Your task to perform on an android device: What's the weather going to be tomorrow? Image 0: 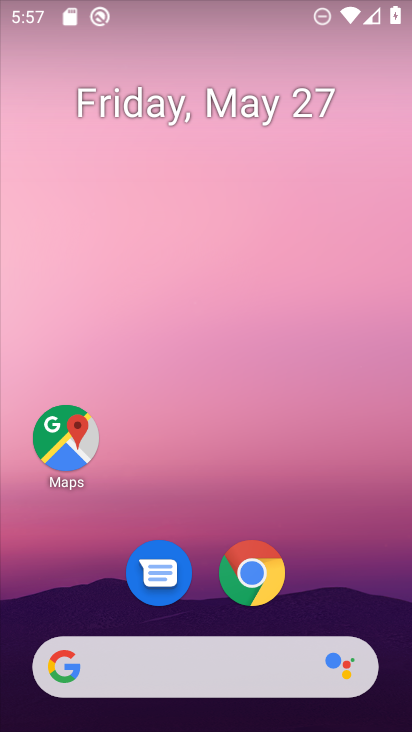
Step 0: press home button
Your task to perform on an android device: What's the weather going to be tomorrow? Image 1: 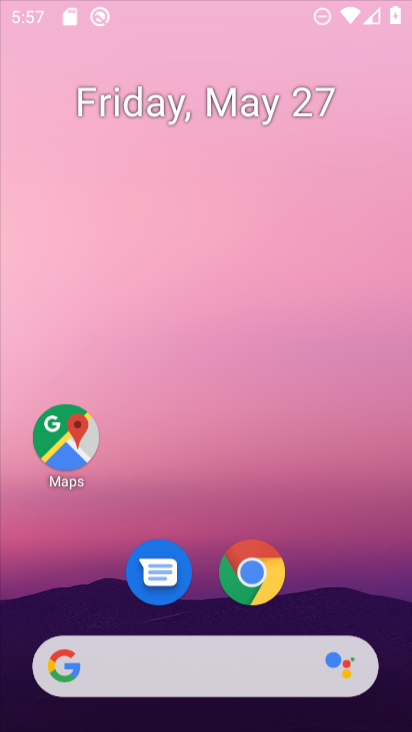
Step 1: drag from (210, 595) to (244, 193)
Your task to perform on an android device: What's the weather going to be tomorrow? Image 2: 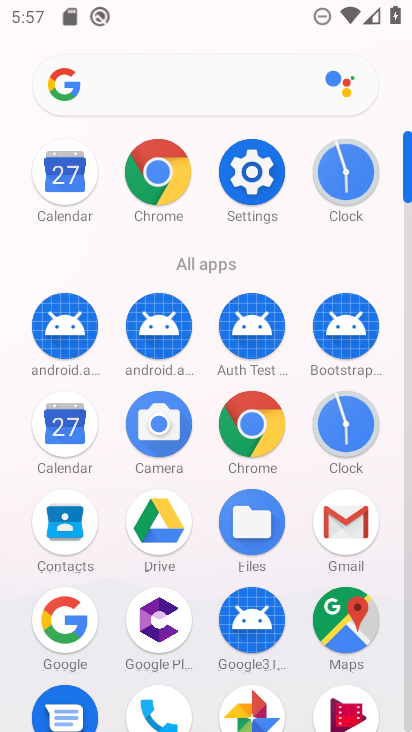
Step 2: press back button
Your task to perform on an android device: What's the weather going to be tomorrow? Image 3: 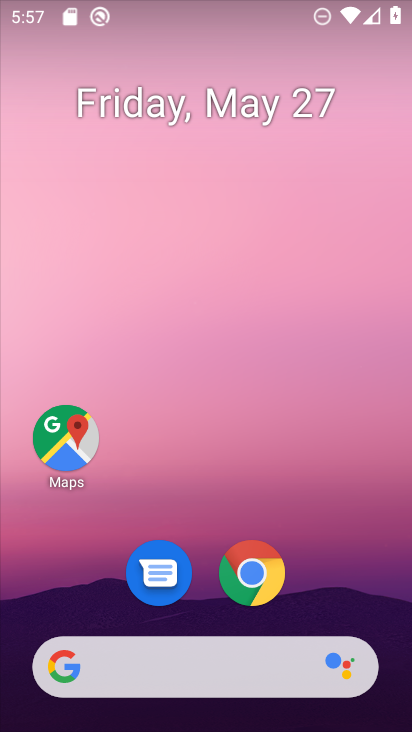
Step 3: drag from (11, 295) to (394, 294)
Your task to perform on an android device: What's the weather going to be tomorrow? Image 4: 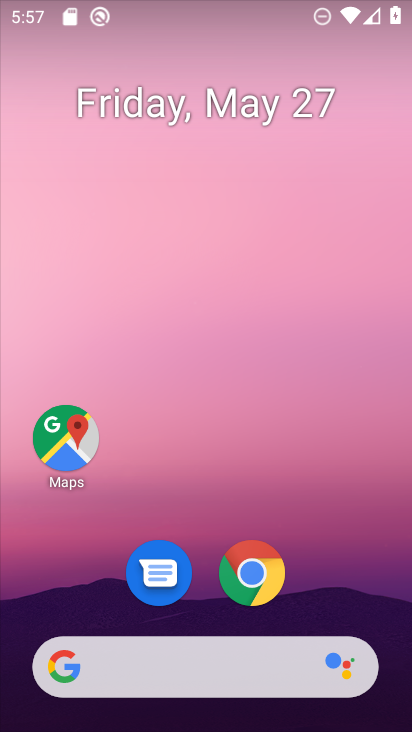
Step 4: drag from (9, 293) to (399, 289)
Your task to perform on an android device: What's the weather going to be tomorrow? Image 5: 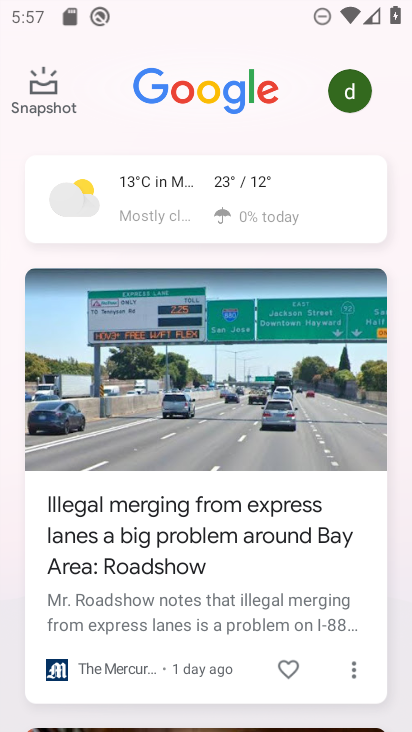
Step 5: click (169, 202)
Your task to perform on an android device: What's the weather going to be tomorrow? Image 6: 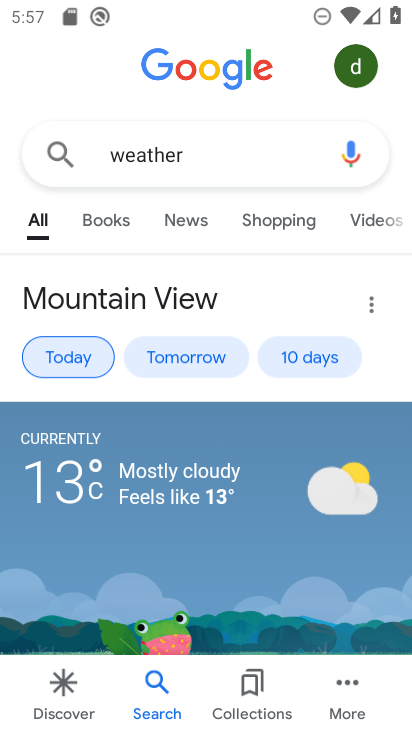
Step 6: click (185, 349)
Your task to perform on an android device: What's the weather going to be tomorrow? Image 7: 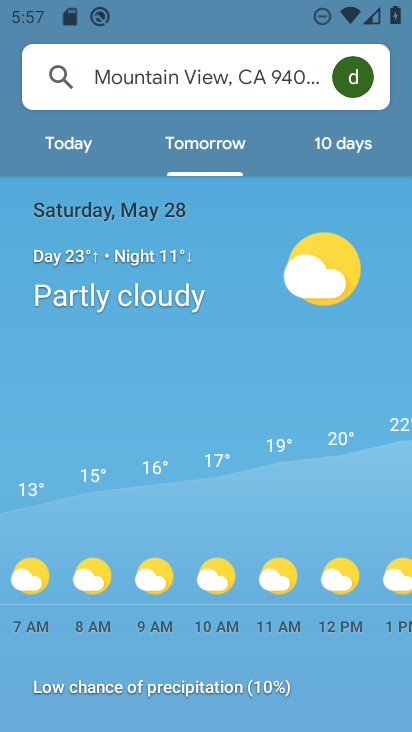
Step 7: drag from (375, 585) to (72, 583)
Your task to perform on an android device: What's the weather going to be tomorrow? Image 8: 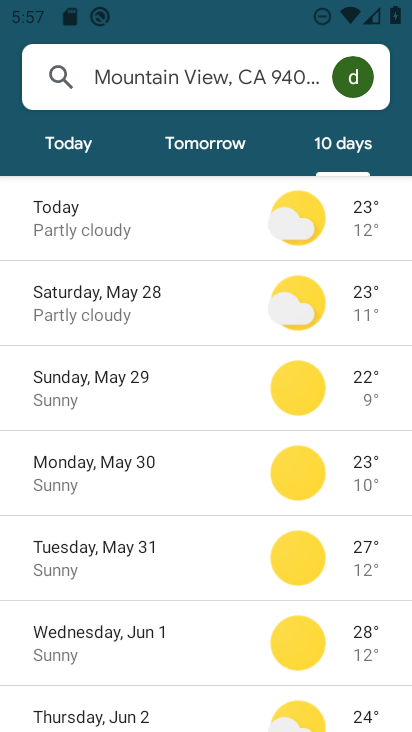
Step 8: click (199, 148)
Your task to perform on an android device: What's the weather going to be tomorrow? Image 9: 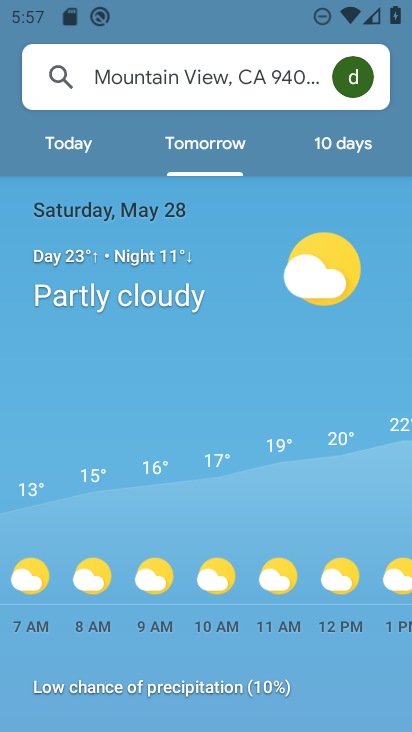
Step 9: click (347, 569)
Your task to perform on an android device: What's the weather going to be tomorrow? Image 10: 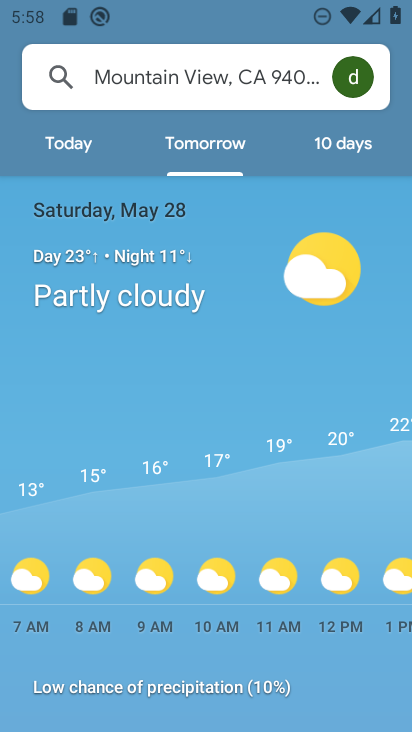
Step 10: task complete